Your task to perform on an android device: find which apps use the phone's location Image 0: 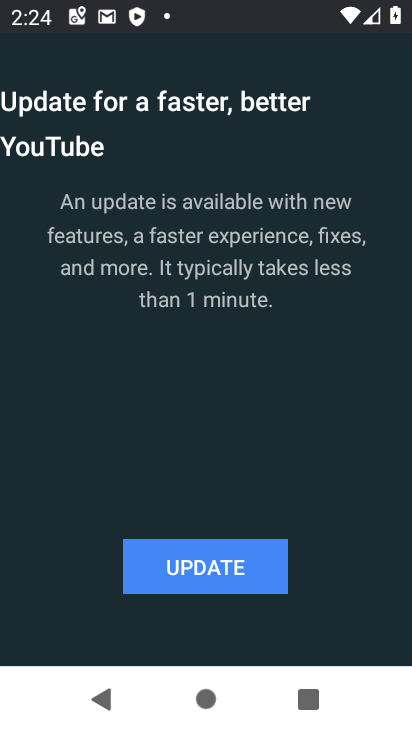
Step 0: press home button
Your task to perform on an android device: find which apps use the phone's location Image 1: 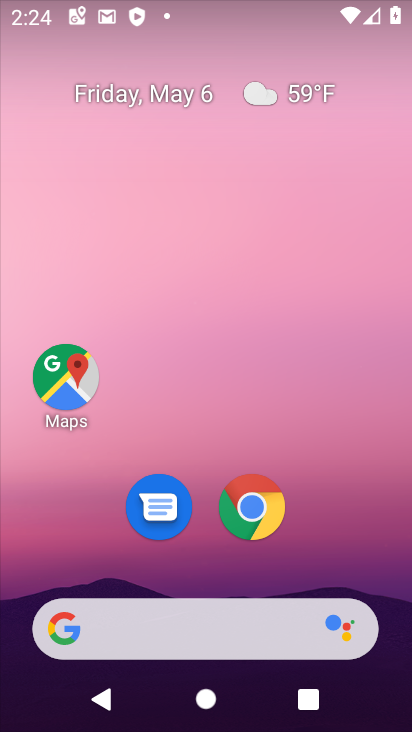
Step 1: drag from (380, 539) to (351, 127)
Your task to perform on an android device: find which apps use the phone's location Image 2: 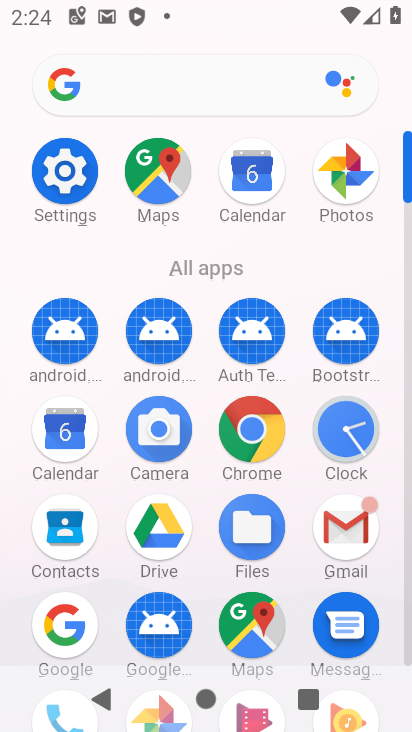
Step 2: click (65, 180)
Your task to perform on an android device: find which apps use the phone's location Image 3: 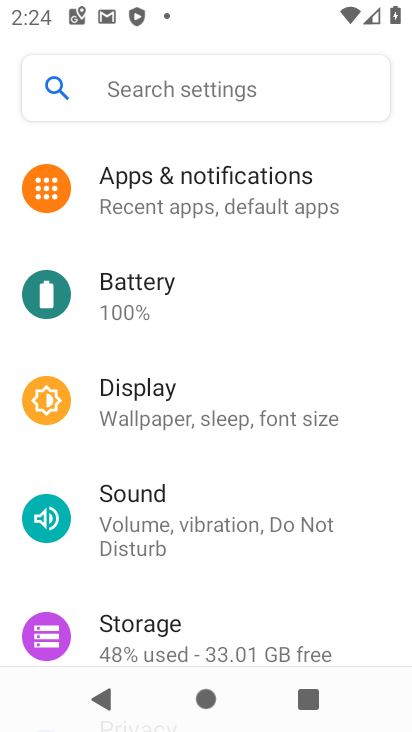
Step 3: drag from (255, 639) to (272, 395)
Your task to perform on an android device: find which apps use the phone's location Image 4: 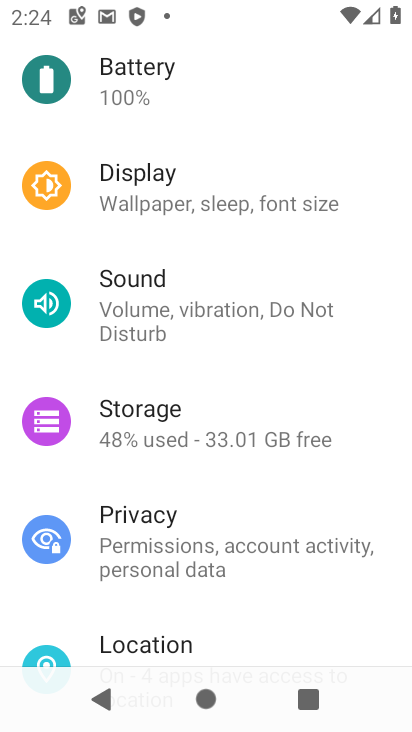
Step 4: click (181, 637)
Your task to perform on an android device: find which apps use the phone's location Image 5: 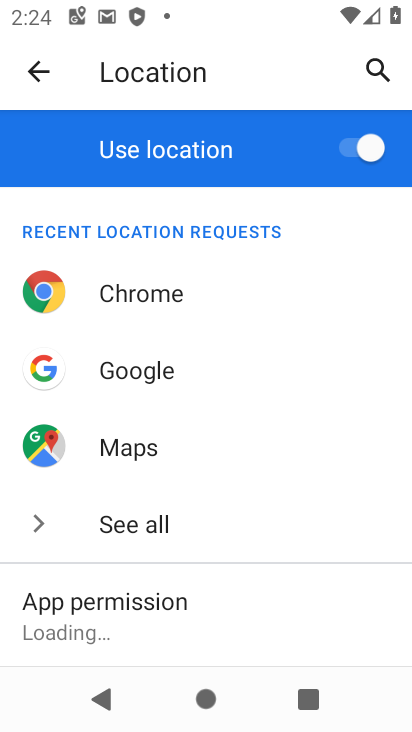
Step 5: click (175, 285)
Your task to perform on an android device: find which apps use the phone's location Image 6: 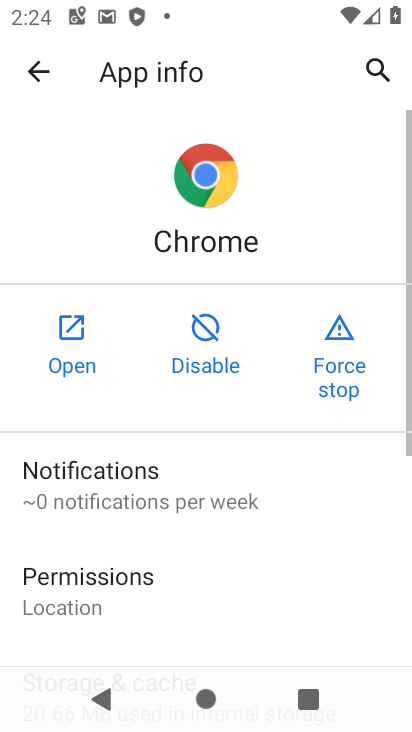
Step 6: drag from (120, 585) to (132, 438)
Your task to perform on an android device: find which apps use the phone's location Image 7: 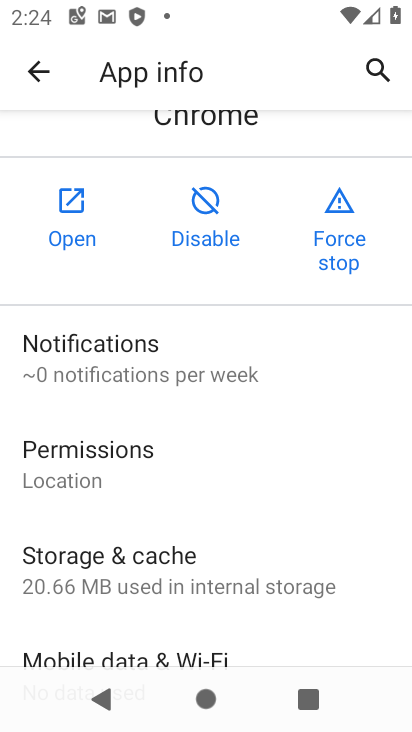
Step 7: click (121, 471)
Your task to perform on an android device: find which apps use the phone's location Image 8: 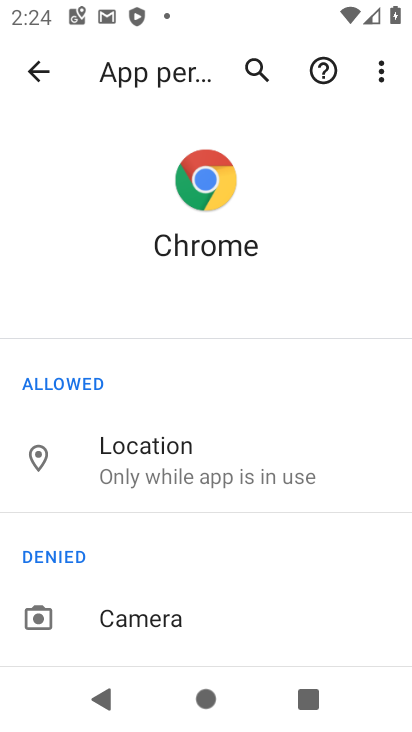
Step 8: task complete